Your task to perform on an android device: turn off improve location accuracy Image 0: 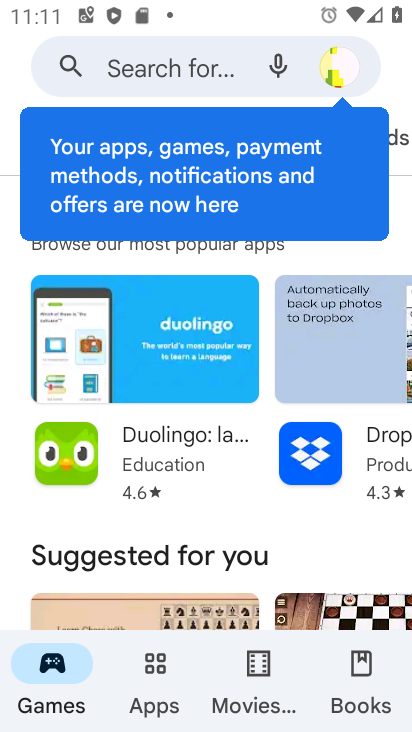
Step 0: press home button
Your task to perform on an android device: turn off improve location accuracy Image 1: 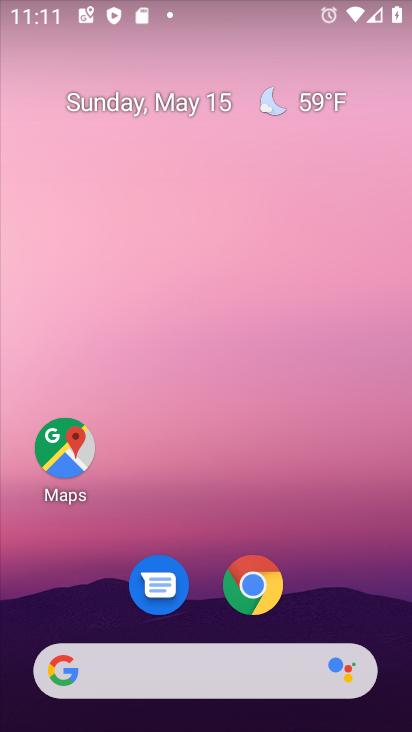
Step 1: drag from (217, 526) to (206, 5)
Your task to perform on an android device: turn off improve location accuracy Image 2: 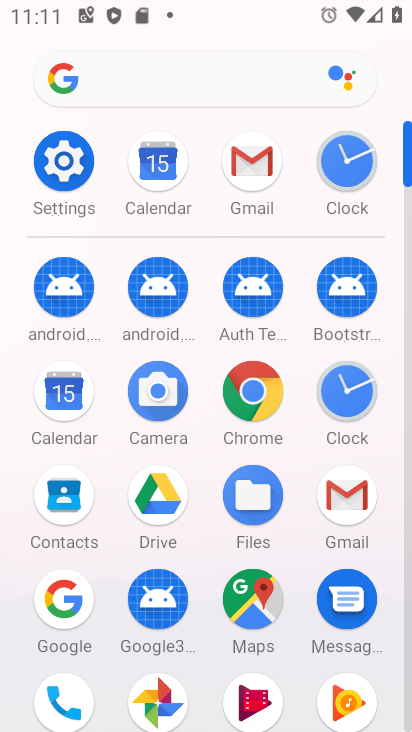
Step 2: click (76, 161)
Your task to perform on an android device: turn off improve location accuracy Image 3: 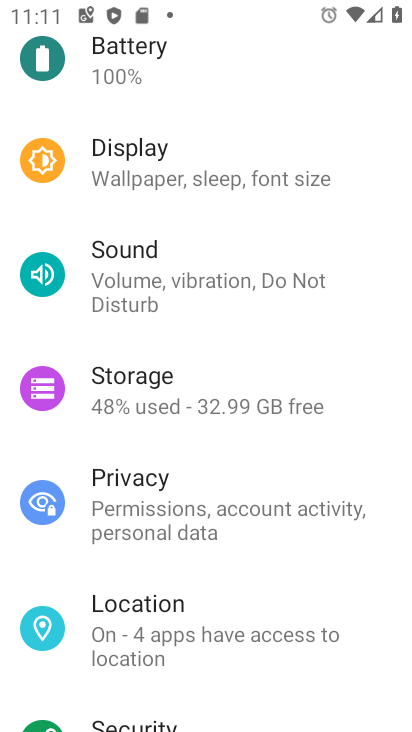
Step 3: click (178, 617)
Your task to perform on an android device: turn off improve location accuracy Image 4: 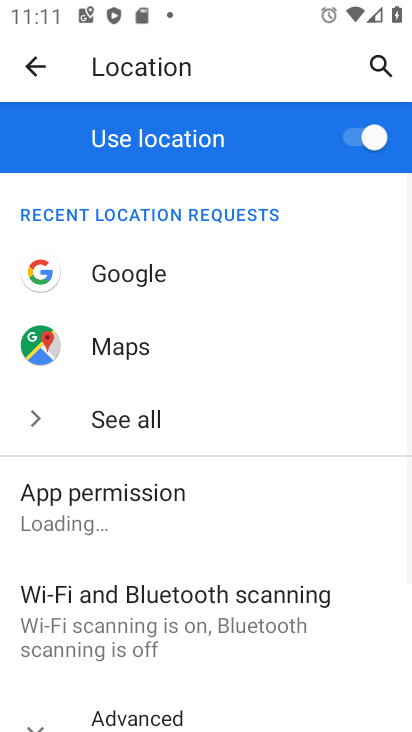
Step 4: drag from (211, 524) to (202, 132)
Your task to perform on an android device: turn off improve location accuracy Image 5: 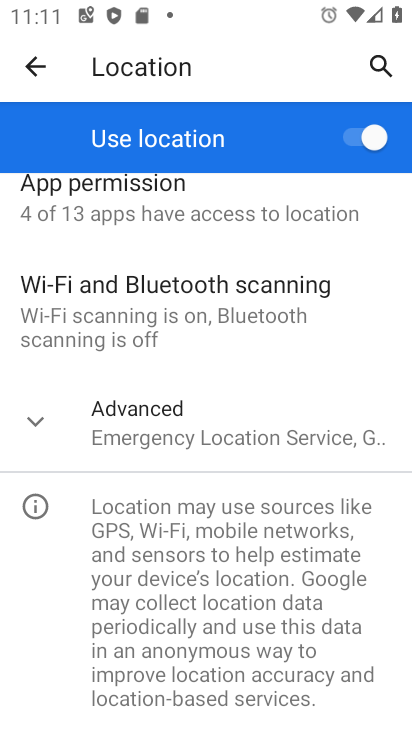
Step 5: click (32, 412)
Your task to perform on an android device: turn off improve location accuracy Image 6: 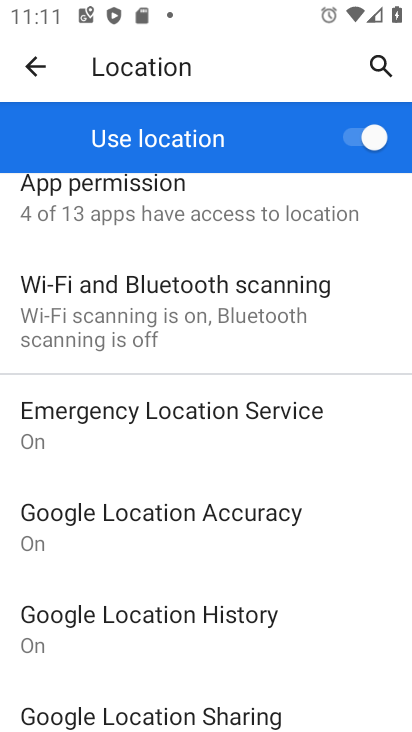
Step 6: click (216, 529)
Your task to perform on an android device: turn off improve location accuracy Image 7: 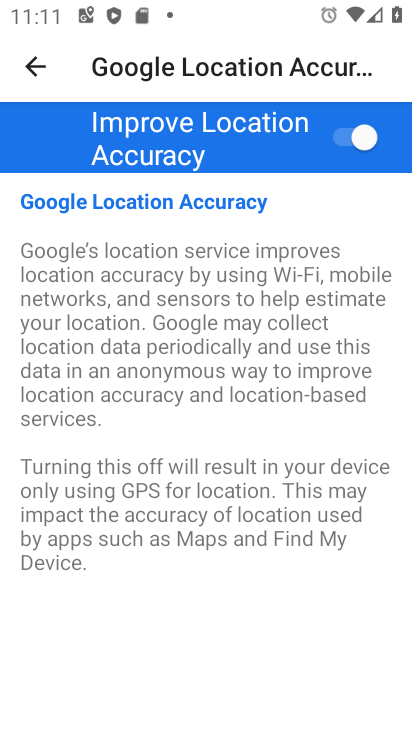
Step 7: click (344, 138)
Your task to perform on an android device: turn off improve location accuracy Image 8: 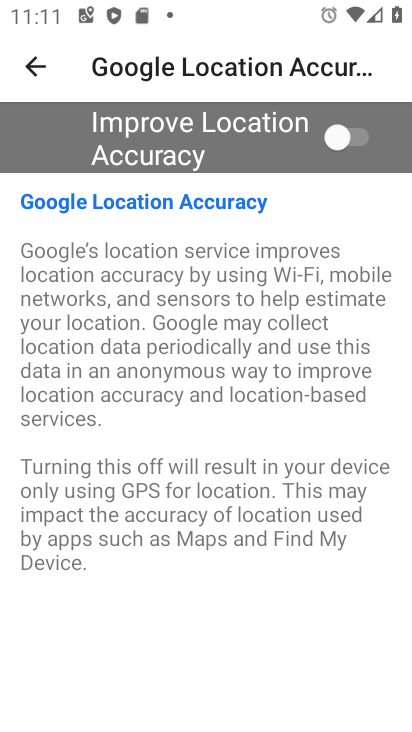
Step 8: task complete